Your task to perform on an android device: search for starred emails in the gmail app Image 0: 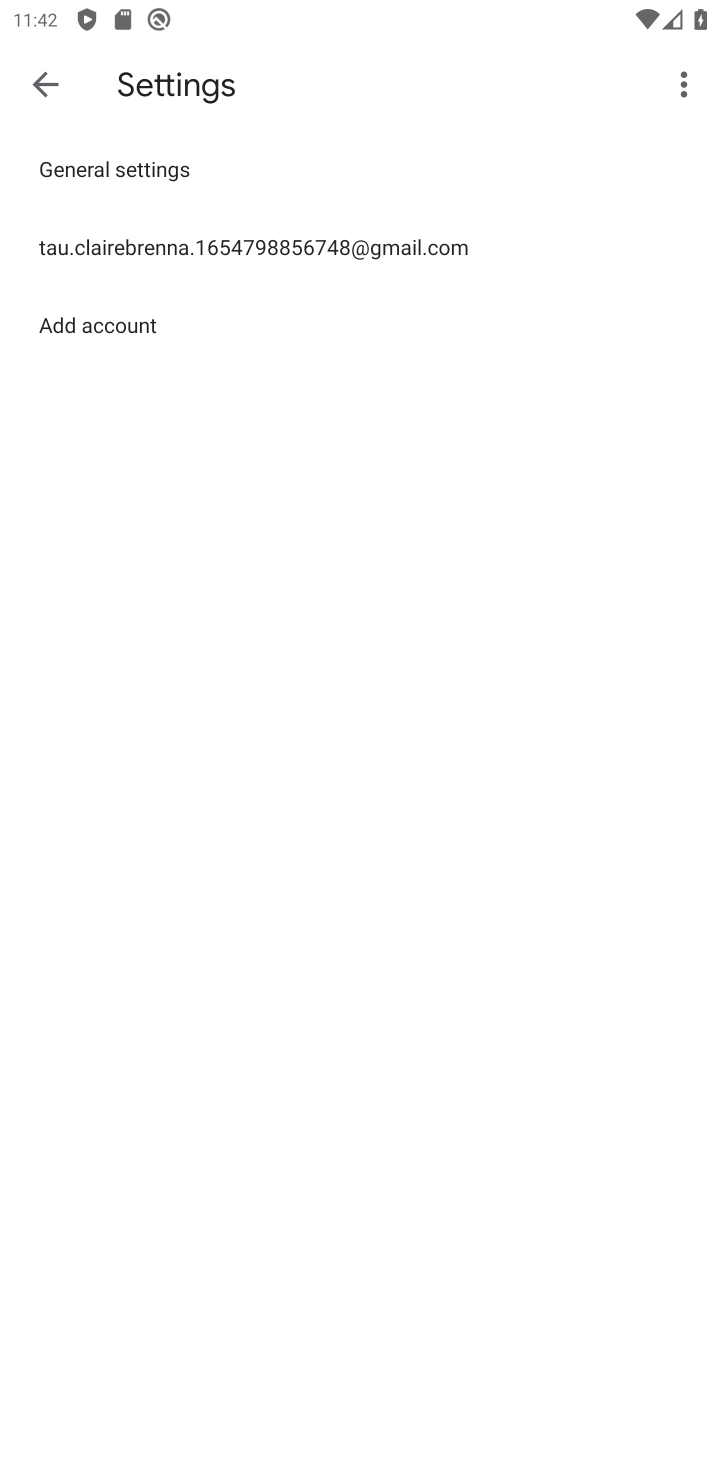
Step 0: press home button
Your task to perform on an android device: search for starred emails in the gmail app Image 1: 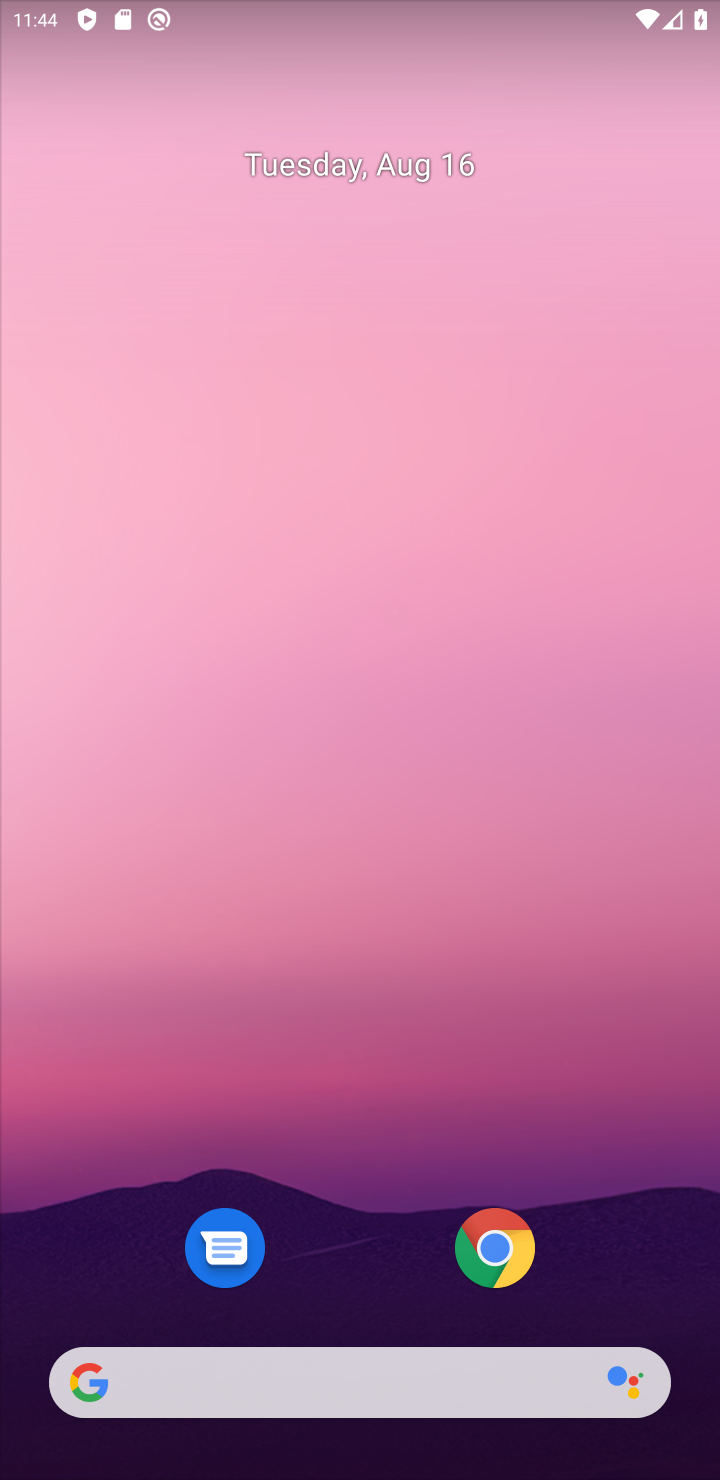
Step 1: task complete